Your task to perform on an android device: Go to settings Image 0: 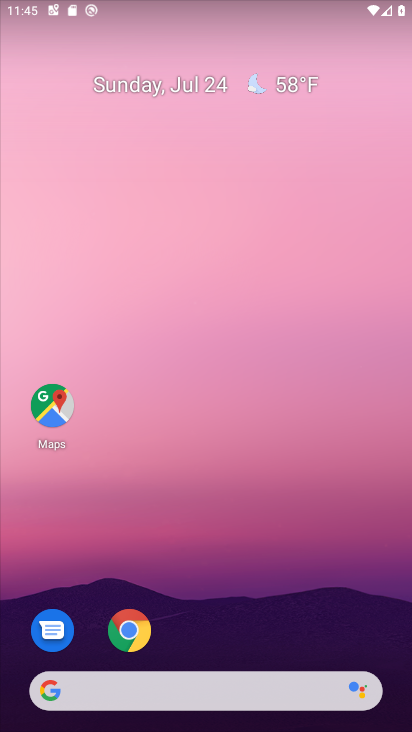
Step 0: drag from (198, 385) to (258, 57)
Your task to perform on an android device: Go to settings Image 1: 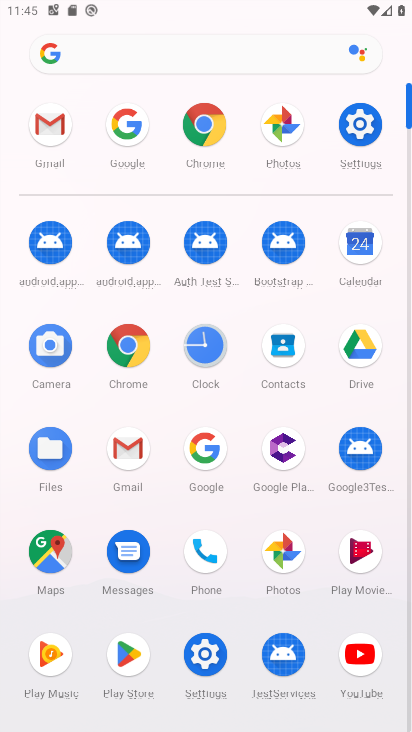
Step 1: click (364, 134)
Your task to perform on an android device: Go to settings Image 2: 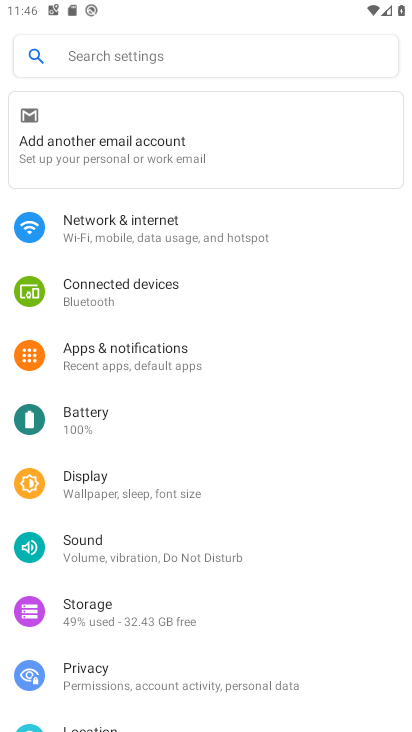
Step 2: task complete